Your task to perform on an android device: Go to Maps Image 0: 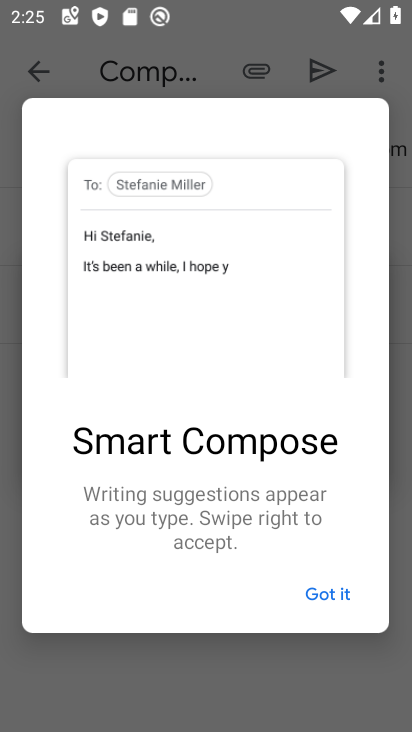
Step 0: press home button
Your task to perform on an android device: Go to Maps Image 1: 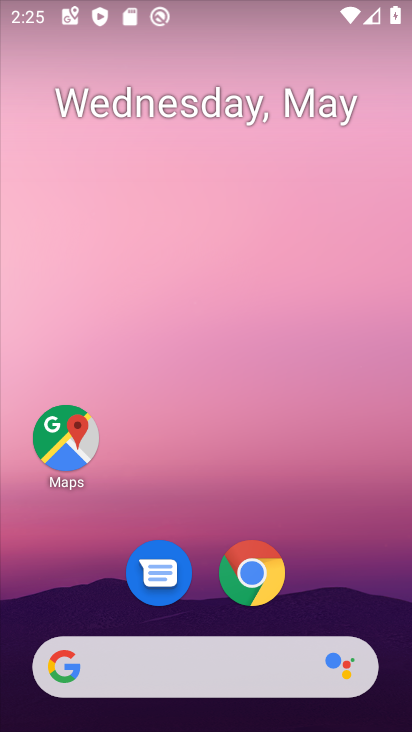
Step 1: click (59, 457)
Your task to perform on an android device: Go to Maps Image 2: 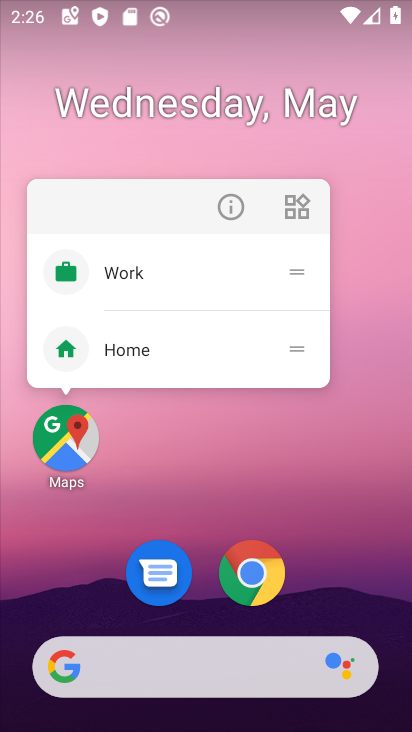
Step 2: click (59, 457)
Your task to perform on an android device: Go to Maps Image 3: 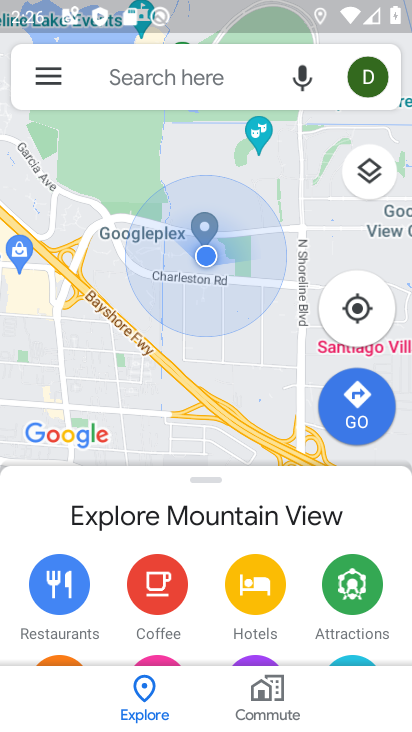
Step 3: task complete